Your task to perform on an android device: change notification settings in the gmail app Image 0: 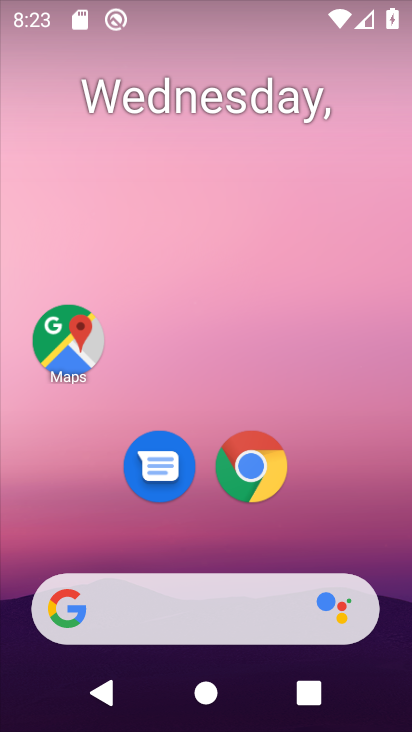
Step 0: drag from (241, 727) to (246, 209)
Your task to perform on an android device: change notification settings in the gmail app Image 1: 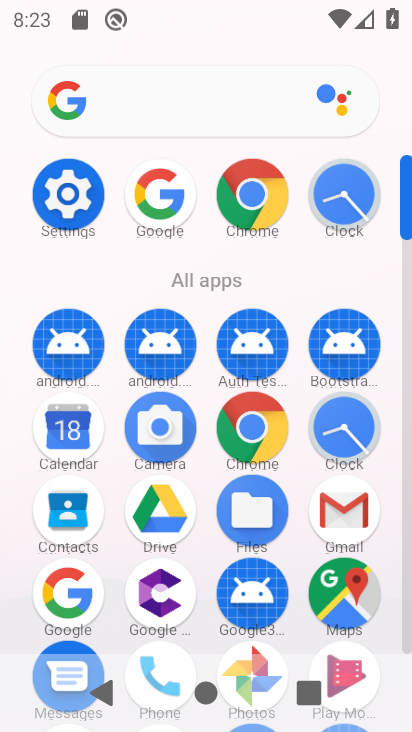
Step 1: click (58, 203)
Your task to perform on an android device: change notification settings in the gmail app Image 2: 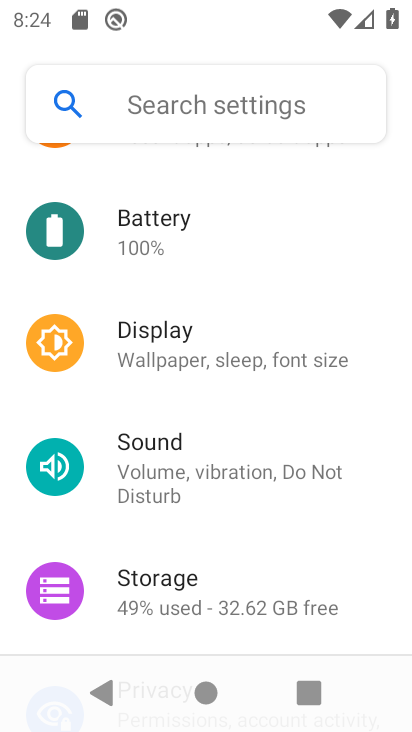
Step 2: drag from (173, 213) to (197, 519)
Your task to perform on an android device: change notification settings in the gmail app Image 3: 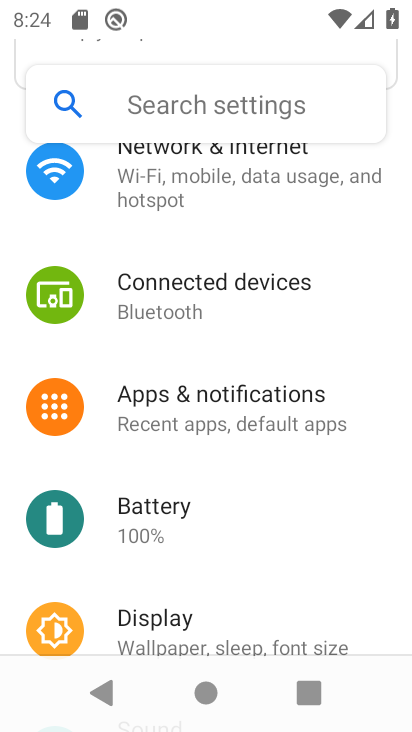
Step 3: drag from (272, 236) to (271, 535)
Your task to perform on an android device: change notification settings in the gmail app Image 4: 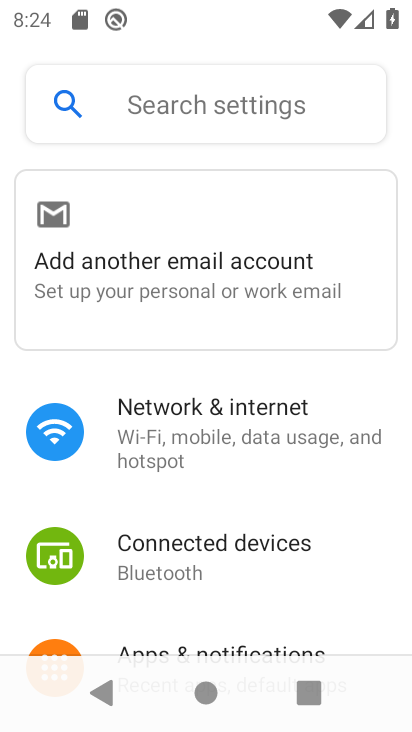
Step 4: drag from (203, 613) to (209, 345)
Your task to perform on an android device: change notification settings in the gmail app Image 5: 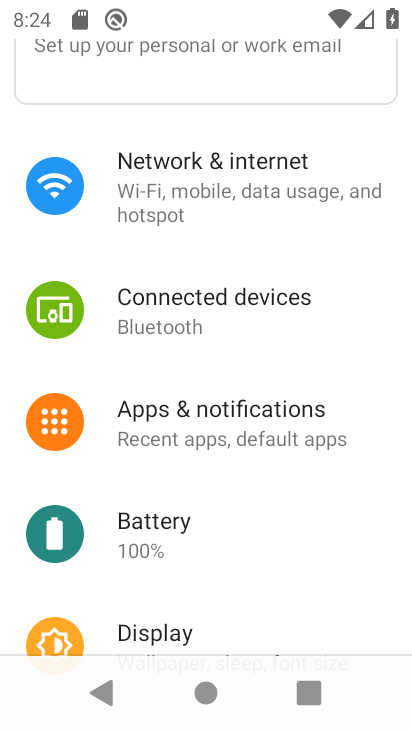
Step 5: drag from (184, 615) to (210, 310)
Your task to perform on an android device: change notification settings in the gmail app Image 6: 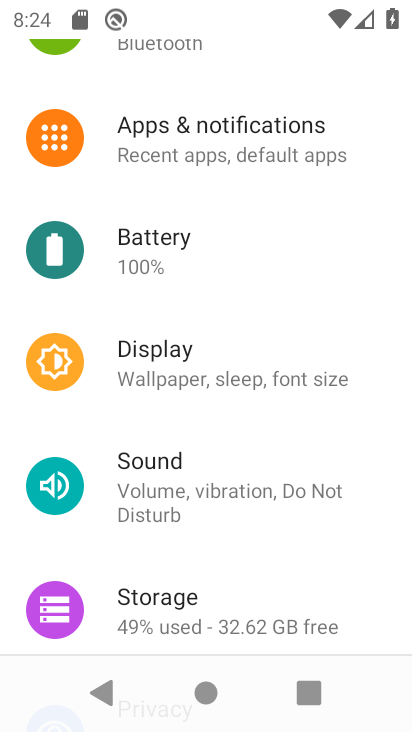
Step 6: drag from (197, 590) to (203, 546)
Your task to perform on an android device: change notification settings in the gmail app Image 7: 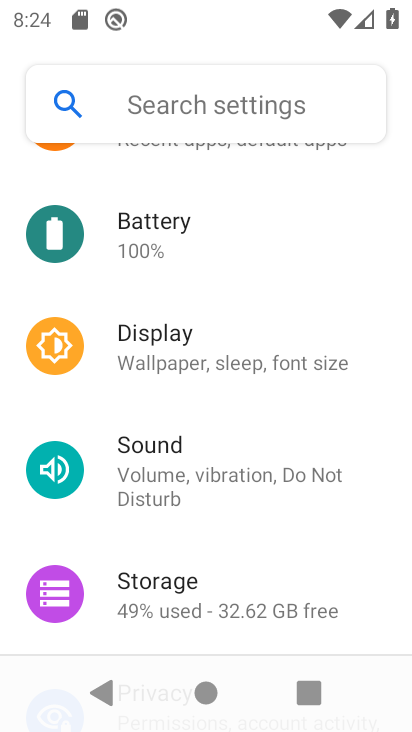
Step 7: drag from (249, 185) to (249, 375)
Your task to perform on an android device: change notification settings in the gmail app Image 8: 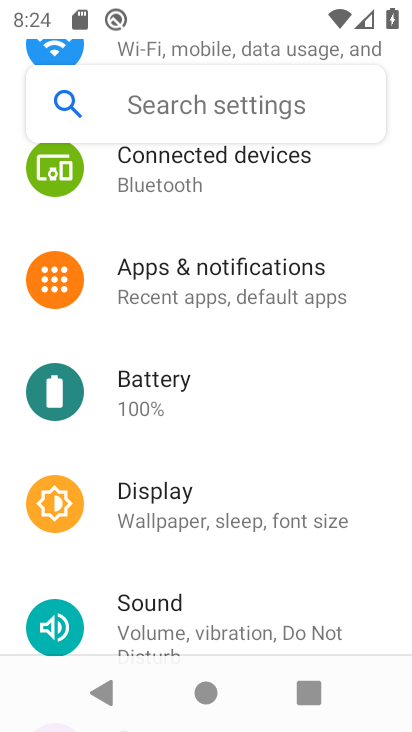
Step 8: click (218, 276)
Your task to perform on an android device: change notification settings in the gmail app Image 9: 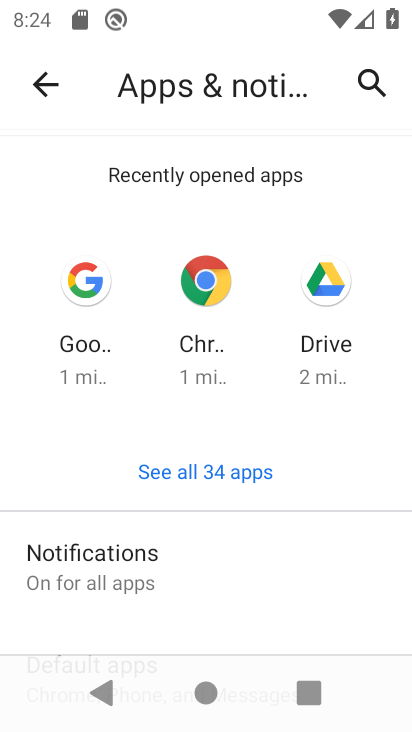
Step 9: press home button
Your task to perform on an android device: change notification settings in the gmail app Image 10: 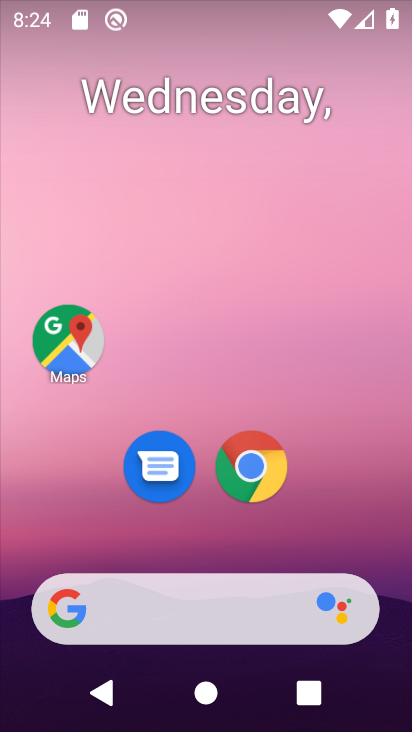
Step 10: drag from (241, 719) to (243, 227)
Your task to perform on an android device: change notification settings in the gmail app Image 11: 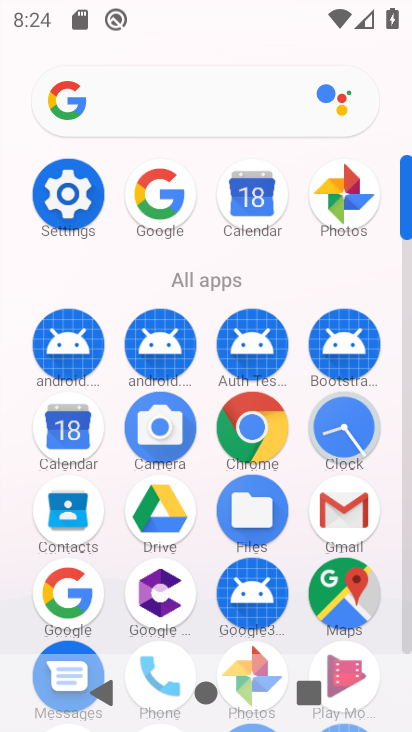
Step 11: click (346, 516)
Your task to perform on an android device: change notification settings in the gmail app Image 12: 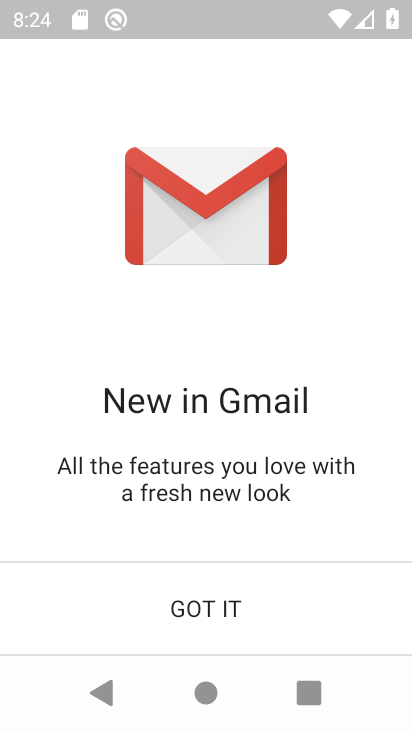
Step 12: click (198, 606)
Your task to perform on an android device: change notification settings in the gmail app Image 13: 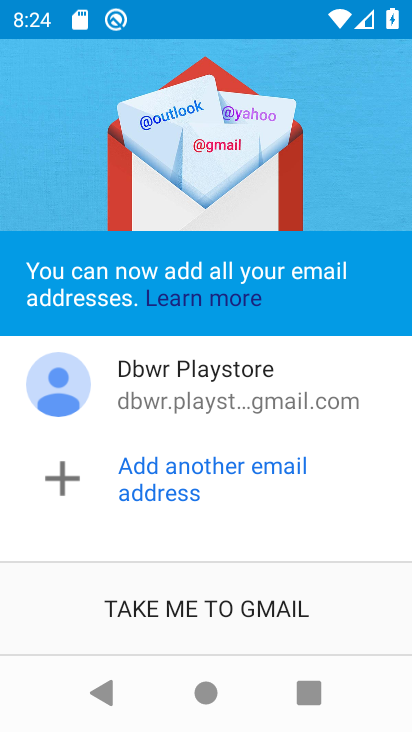
Step 13: click (209, 603)
Your task to perform on an android device: change notification settings in the gmail app Image 14: 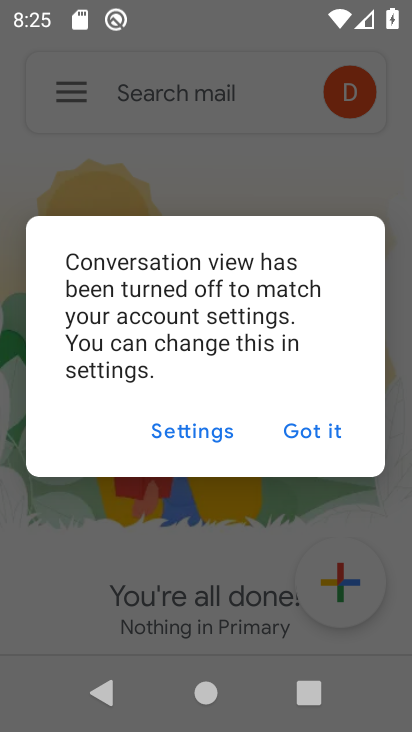
Step 14: click (299, 426)
Your task to perform on an android device: change notification settings in the gmail app Image 15: 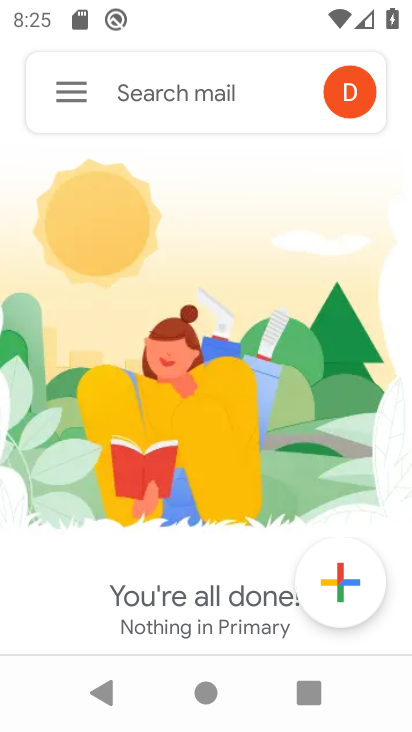
Step 15: click (66, 97)
Your task to perform on an android device: change notification settings in the gmail app Image 16: 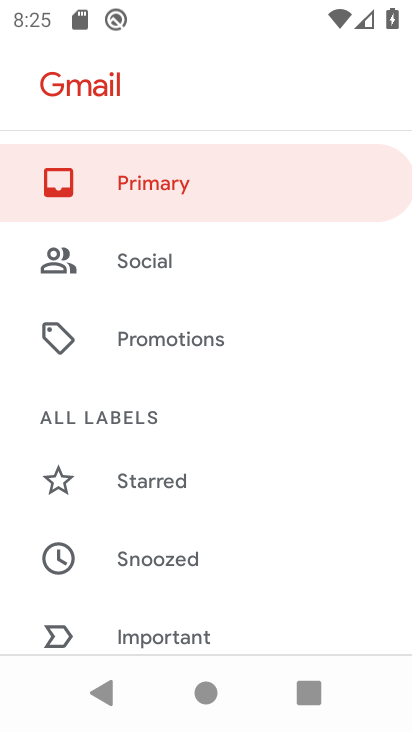
Step 16: drag from (162, 578) to (179, 206)
Your task to perform on an android device: change notification settings in the gmail app Image 17: 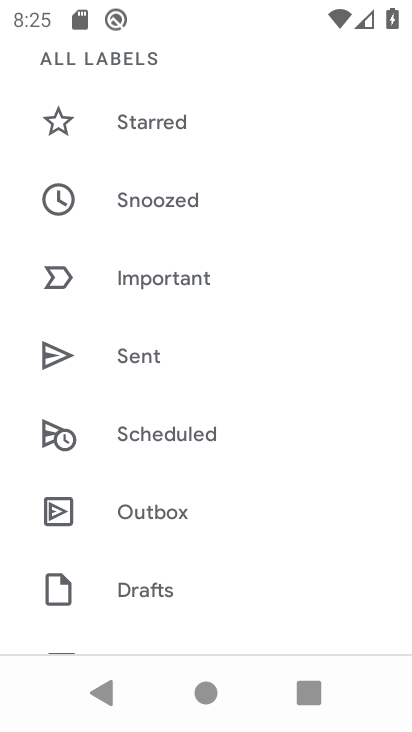
Step 17: drag from (171, 542) to (172, 247)
Your task to perform on an android device: change notification settings in the gmail app Image 18: 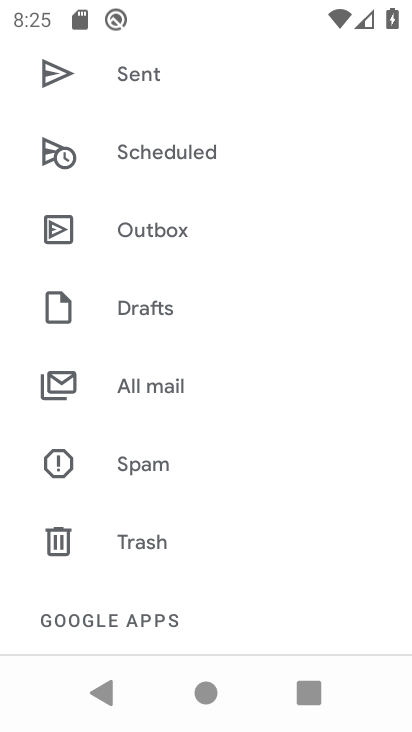
Step 18: drag from (155, 590) to (164, 227)
Your task to perform on an android device: change notification settings in the gmail app Image 19: 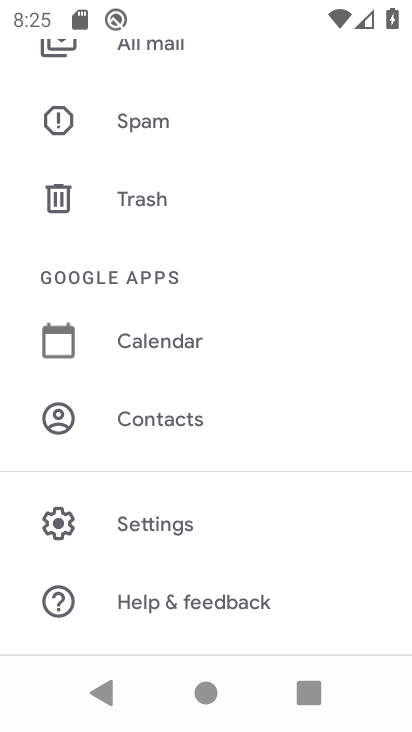
Step 19: drag from (182, 576) to (187, 335)
Your task to perform on an android device: change notification settings in the gmail app Image 20: 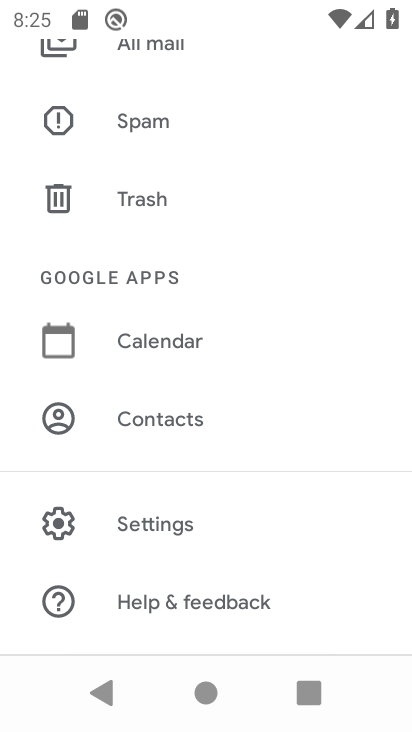
Step 20: click (150, 524)
Your task to perform on an android device: change notification settings in the gmail app Image 21: 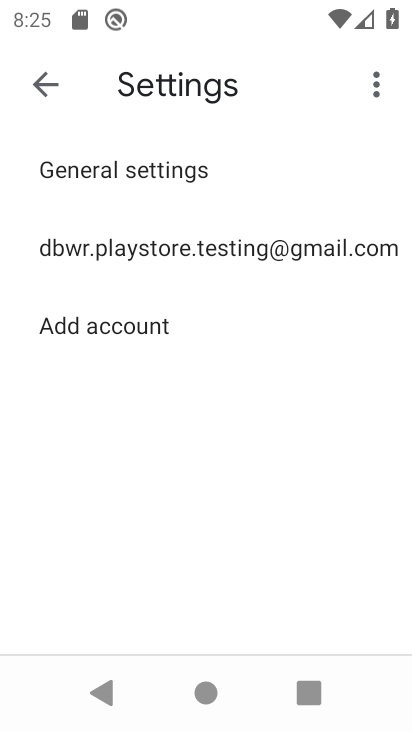
Step 21: click (166, 248)
Your task to perform on an android device: change notification settings in the gmail app Image 22: 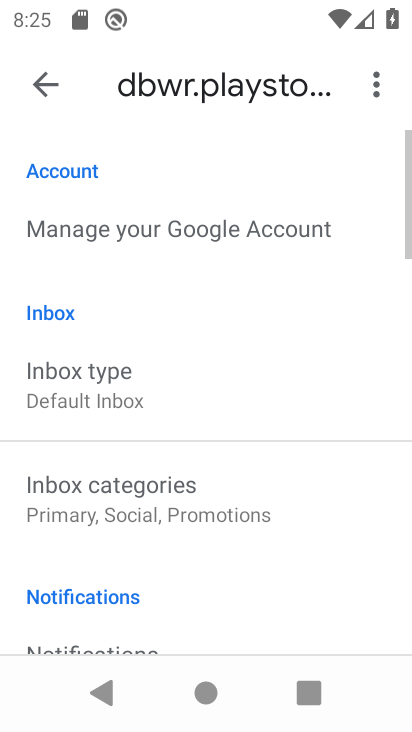
Step 22: drag from (134, 585) to (128, 258)
Your task to perform on an android device: change notification settings in the gmail app Image 23: 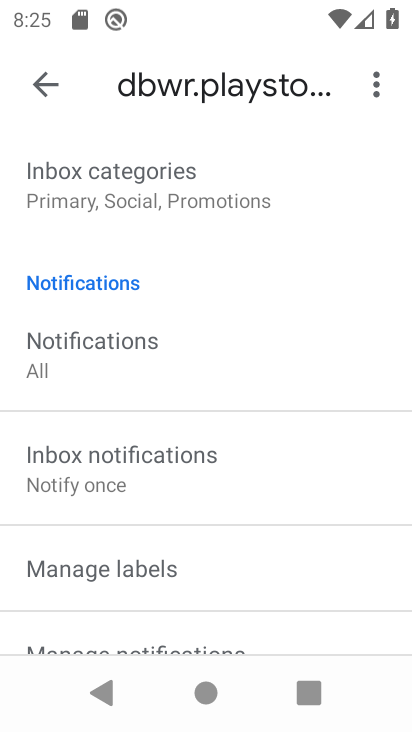
Step 23: click (100, 343)
Your task to perform on an android device: change notification settings in the gmail app Image 24: 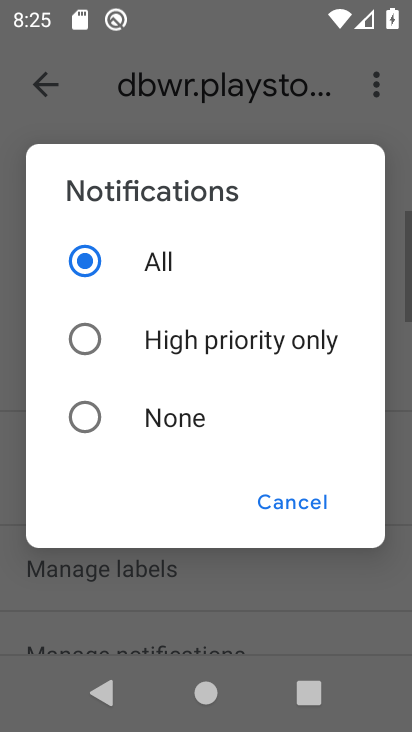
Step 24: click (79, 340)
Your task to perform on an android device: change notification settings in the gmail app Image 25: 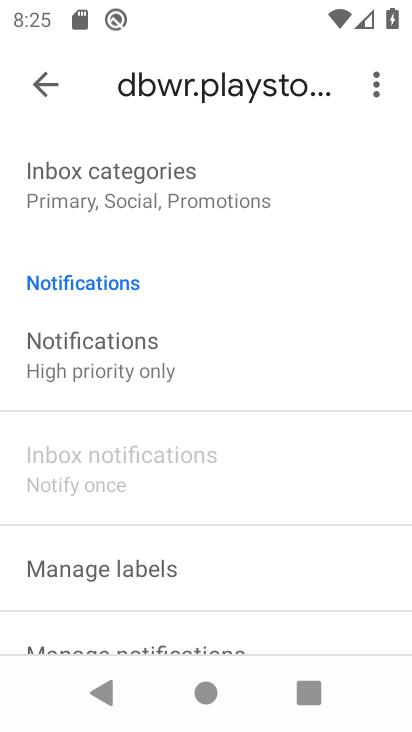
Step 25: task complete